Your task to perform on an android device: Open sound settings Image 0: 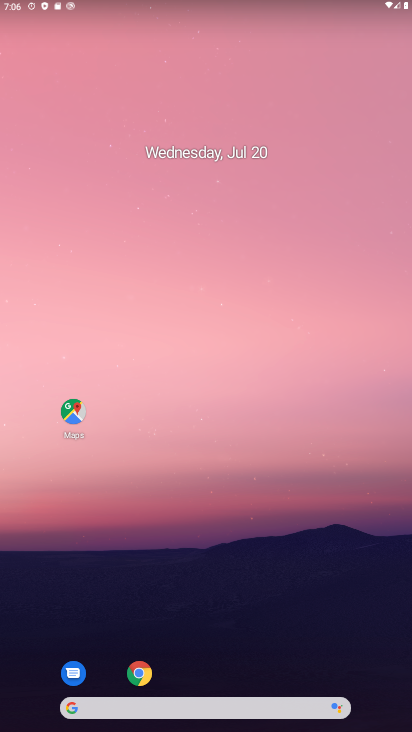
Step 0: drag from (365, 646) to (233, 16)
Your task to perform on an android device: Open sound settings Image 1: 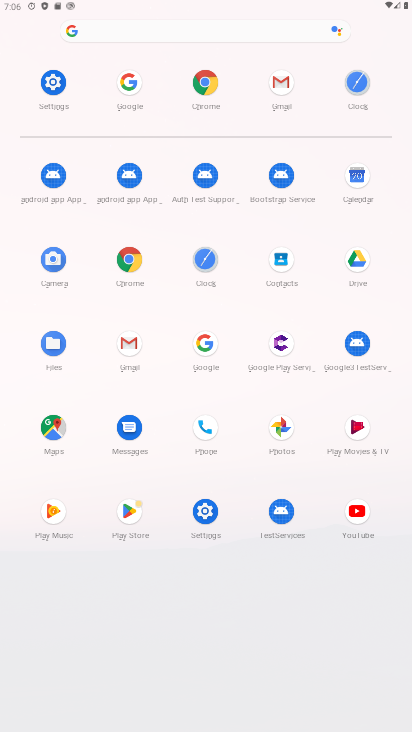
Step 1: click (219, 518)
Your task to perform on an android device: Open sound settings Image 2: 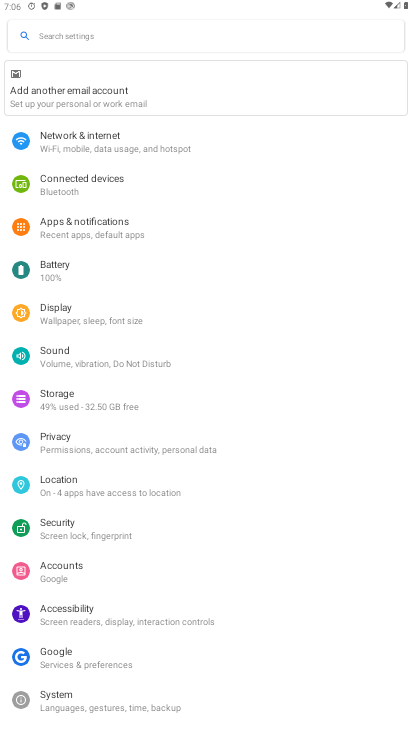
Step 2: click (82, 361)
Your task to perform on an android device: Open sound settings Image 3: 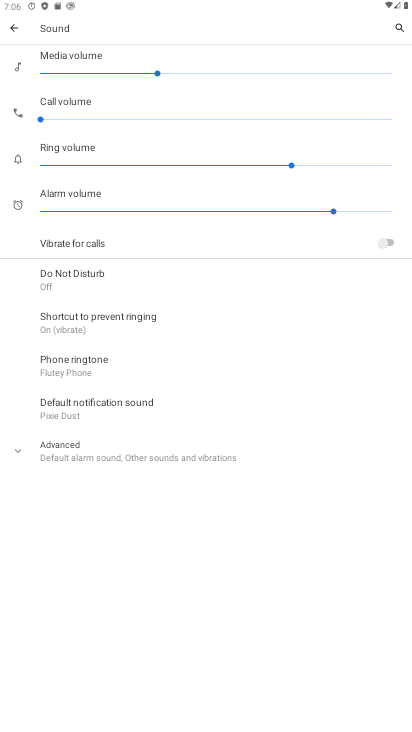
Step 3: task complete